Your task to perform on an android device: What's the weather going to be this weekend? Image 0: 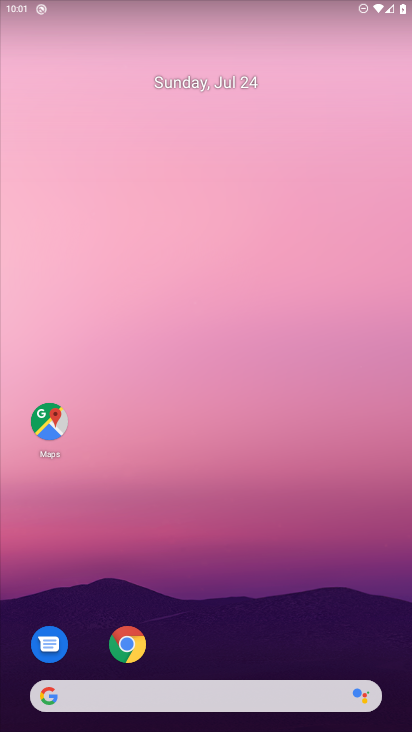
Step 0: drag from (221, 678) to (172, 39)
Your task to perform on an android device: What's the weather going to be this weekend? Image 1: 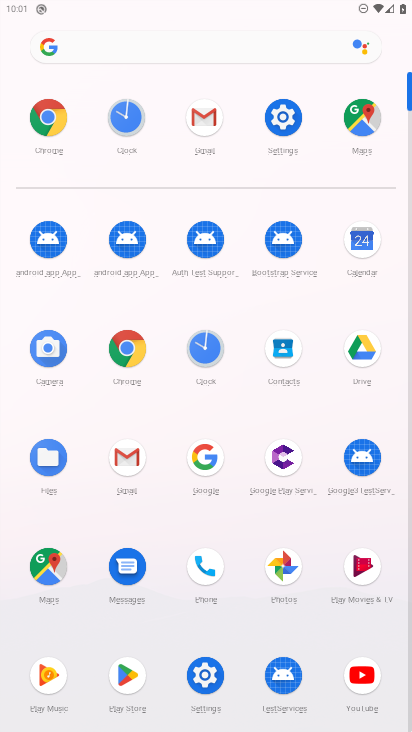
Step 1: click (105, 359)
Your task to perform on an android device: What's the weather going to be this weekend? Image 2: 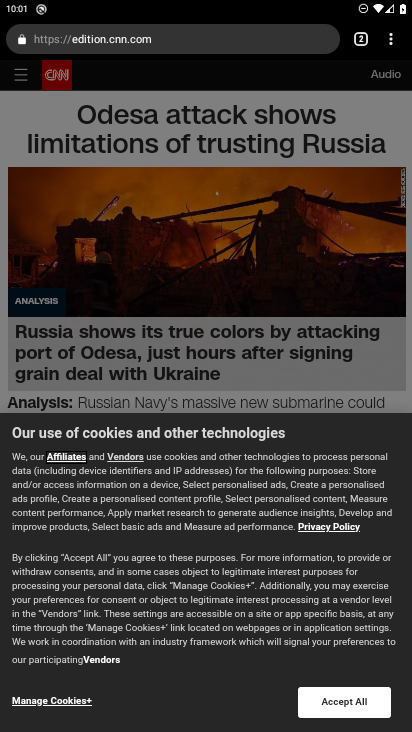
Step 2: click (87, 37)
Your task to perform on an android device: What's the weather going to be this weekend? Image 3: 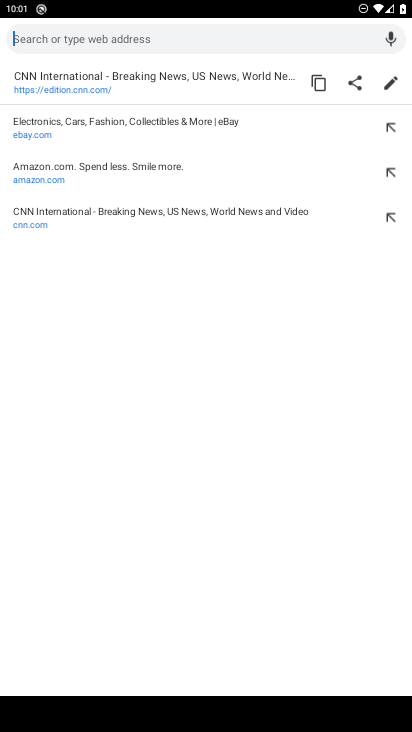
Step 3: type "What's the weather going to be this weekend?"
Your task to perform on an android device: What's the weather going to be this weekend? Image 4: 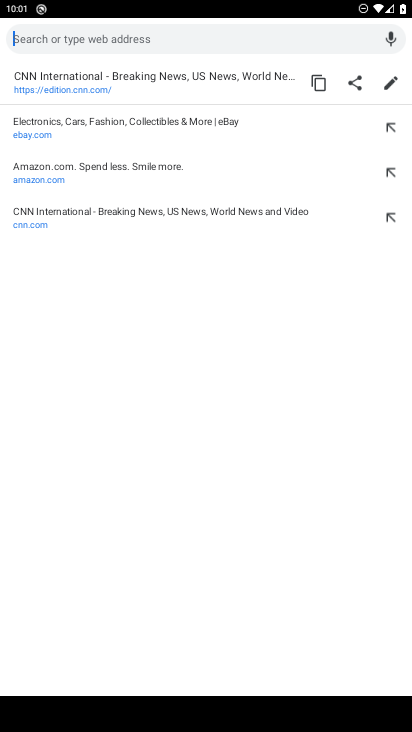
Step 4: click (36, 79)
Your task to perform on an android device: What's the weather going to be this weekend? Image 5: 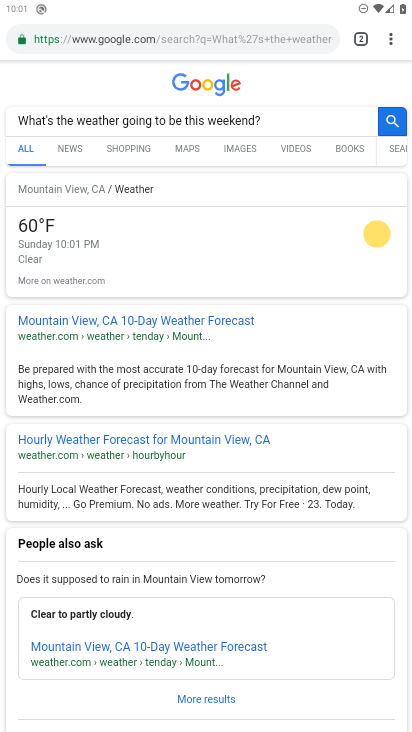
Step 5: task complete